Your task to perform on an android device: toggle notifications settings in the gmail app Image 0: 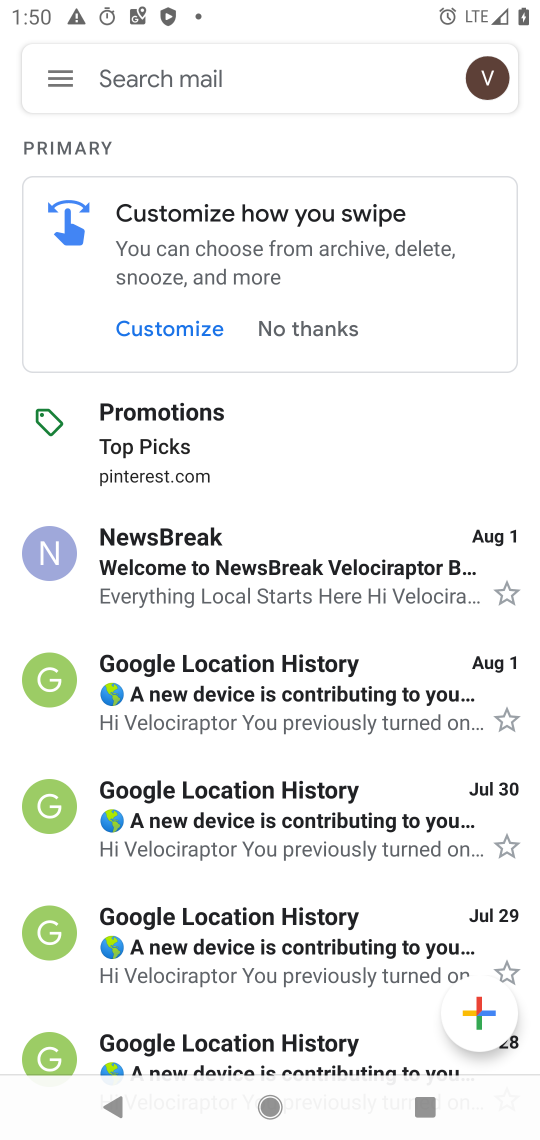
Step 0: click (61, 75)
Your task to perform on an android device: toggle notifications settings in the gmail app Image 1: 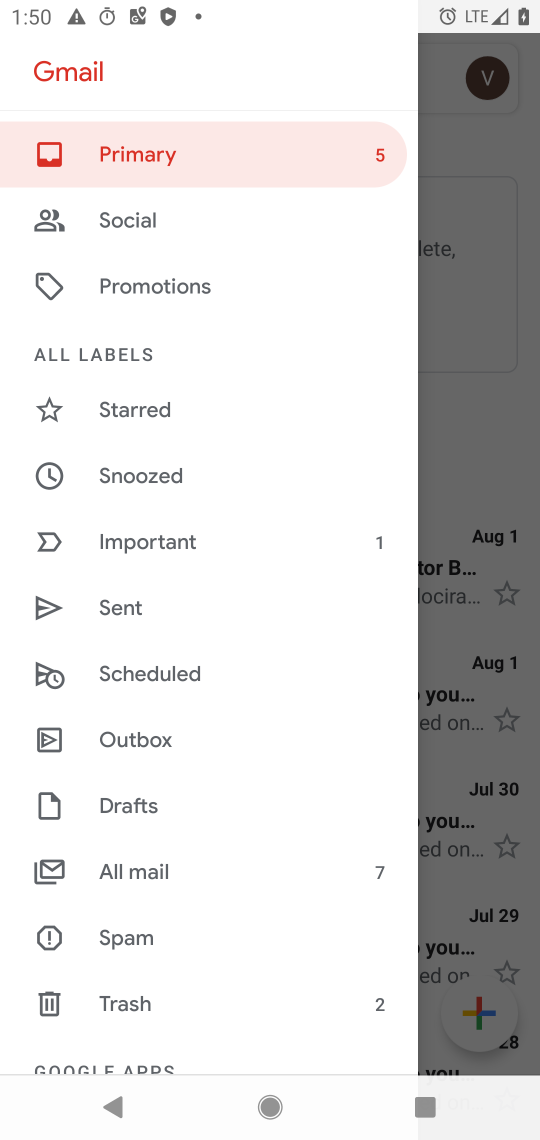
Step 1: drag from (85, 1036) to (207, 538)
Your task to perform on an android device: toggle notifications settings in the gmail app Image 2: 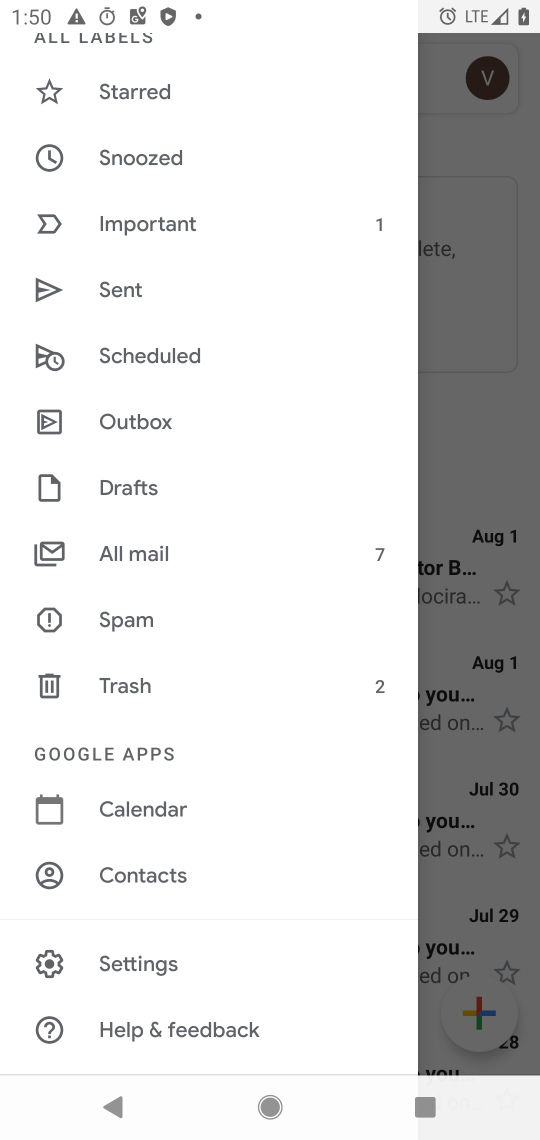
Step 2: click (151, 971)
Your task to perform on an android device: toggle notifications settings in the gmail app Image 3: 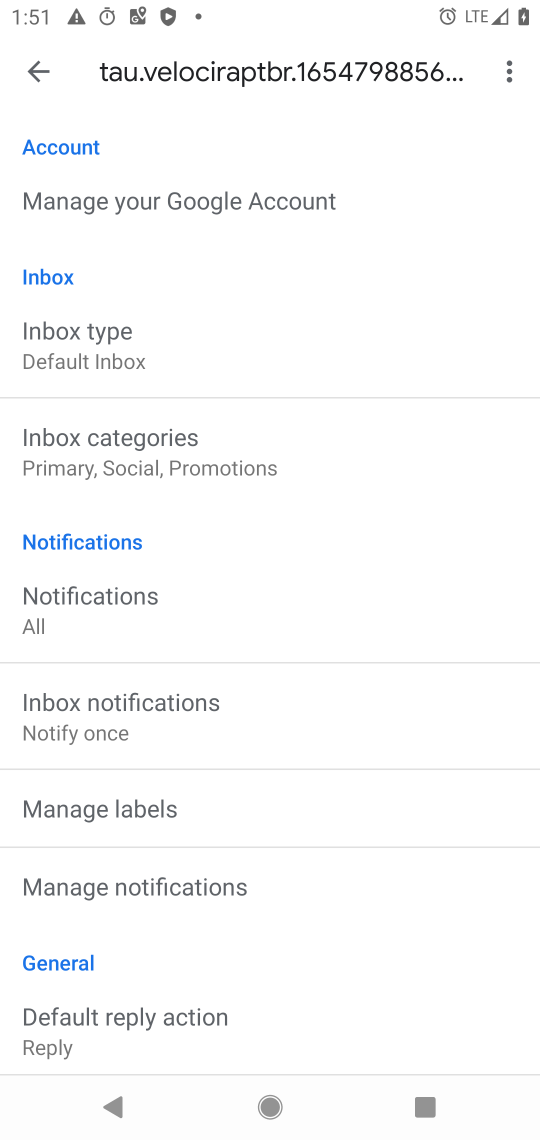
Step 3: click (80, 604)
Your task to perform on an android device: toggle notifications settings in the gmail app Image 4: 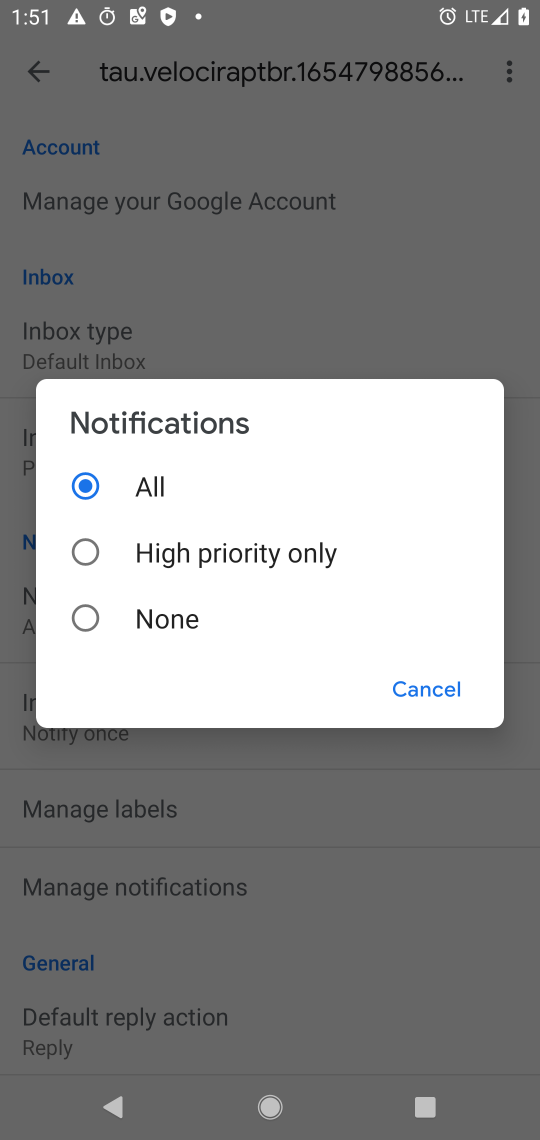
Step 4: click (82, 611)
Your task to perform on an android device: toggle notifications settings in the gmail app Image 5: 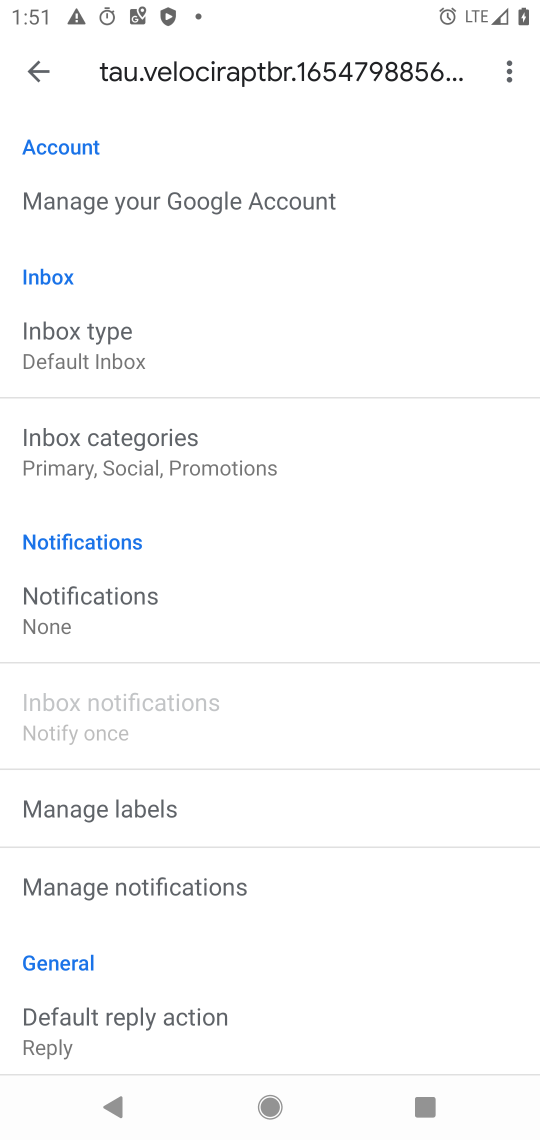
Step 5: click (80, 612)
Your task to perform on an android device: toggle notifications settings in the gmail app Image 6: 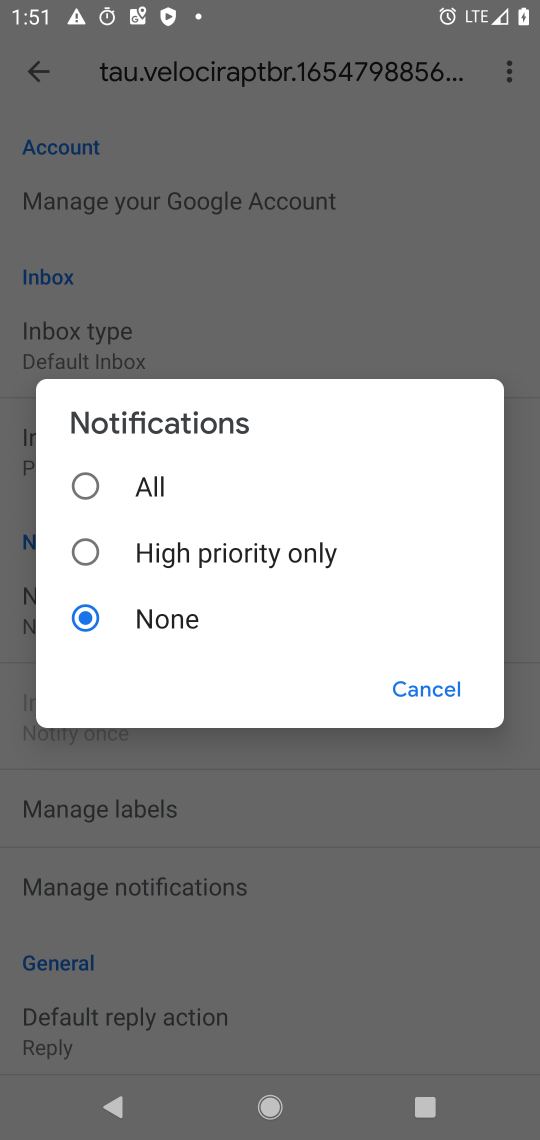
Step 6: click (80, 543)
Your task to perform on an android device: toggle notifications settings in the gmail app Image 7: 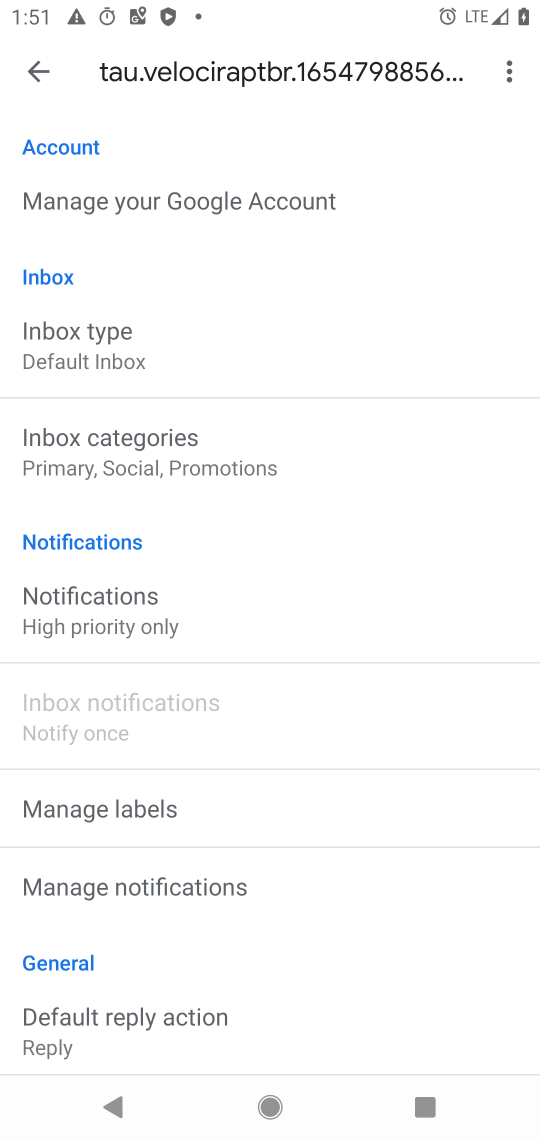
Step 7: task complete